Your task to perform on an android device: Go to notification settings Image 0: 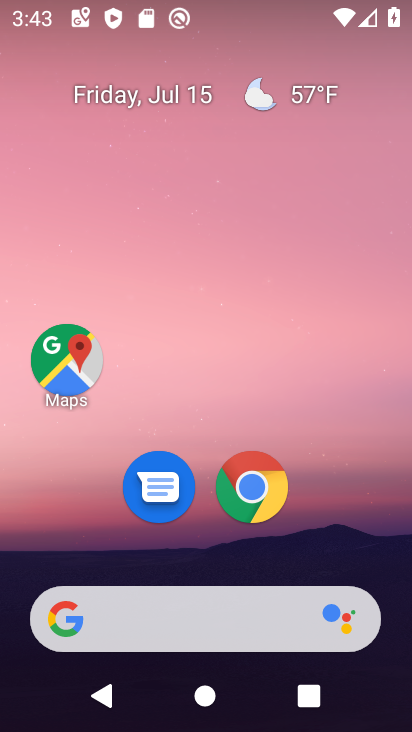
Step 0: drag from (245, 606) to (228, 236)
Your task to perform on an android device: Go to notification settings Image 1: 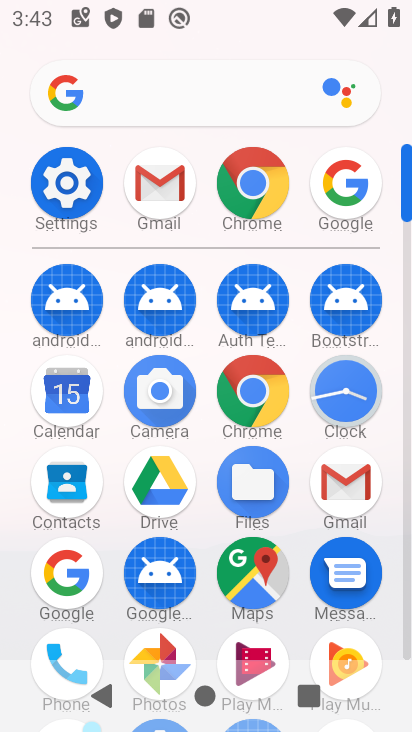
Step 1: click (82, 222)
Your task to perform on an android device: Go to notification settings Image 2: 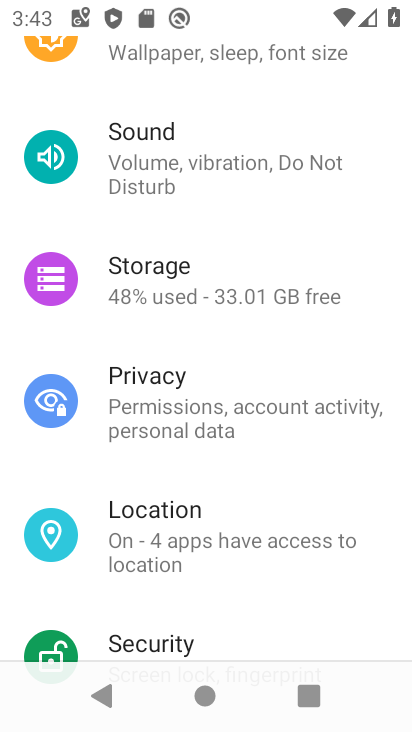
Step 2: drag from (197, 232) to (180, 525)
Your task to perform on an android device: Go to notification settings Image 3: 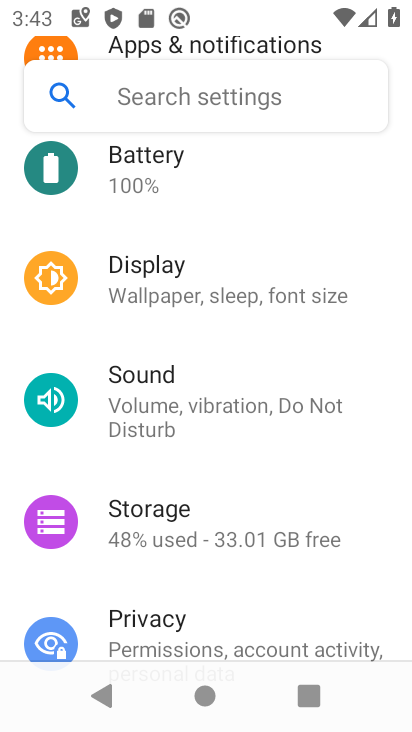
Step 3: drag from (163, 366) to (128, 609)
Your task to perform on an android device: Go to notification settings Image 4: 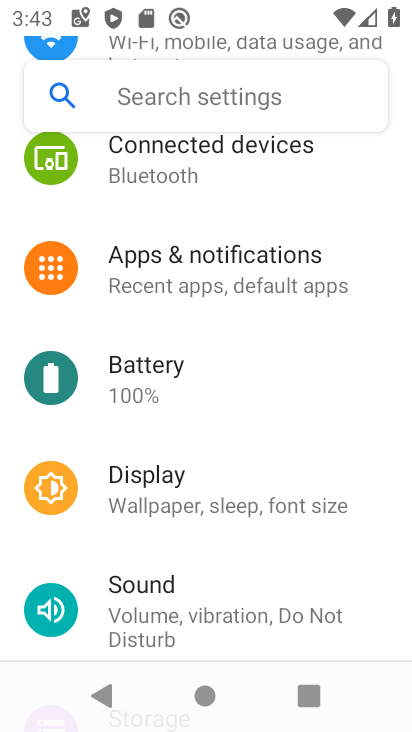
Step 4: click (224, 279)
Your task to perform on an android device: Go to notification settings Image 5: 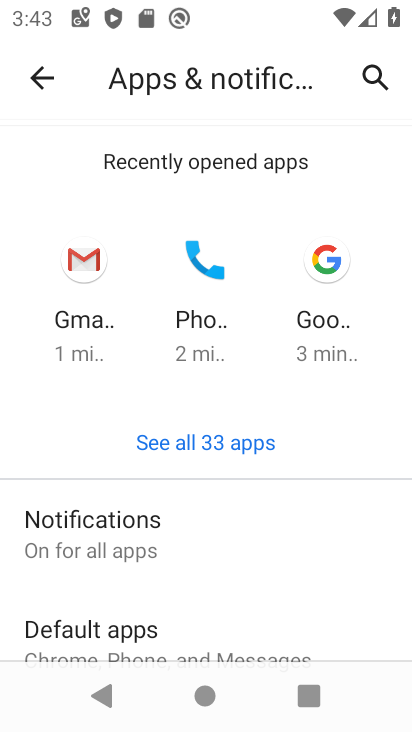
Step 5: click (141, 537)
Your task to perform on an android device: Go to notification settings Image 6: 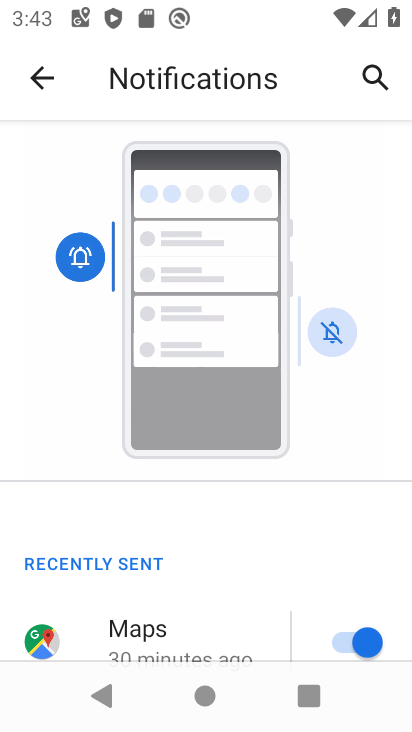
Step 6: task complete